Your task to perform on an android device: set the stopwatch Image 0: 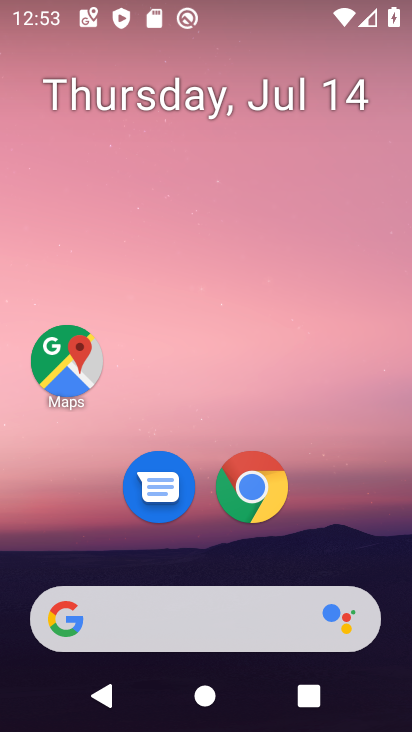
Step 0: drag from (235, 609) to (223, 157)
Your task to perform on an android device: set the stopwatch Image 1: 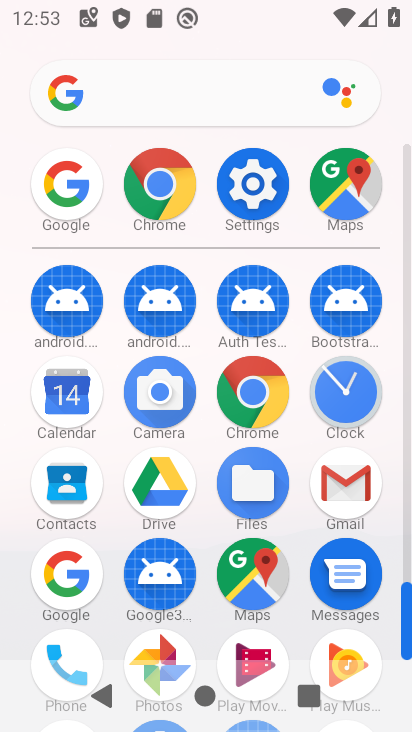
Step 1: click (371, 394)
Your task to perform on an android device: set the stopwatch Image 2: 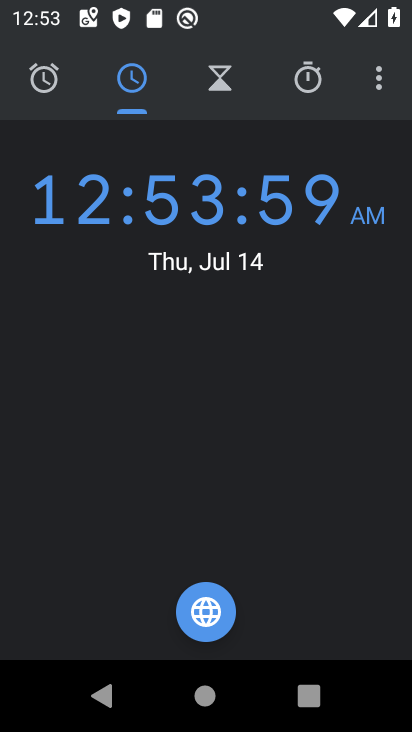
Step 2: click (305, 89)
Your task to perform on an android device: set the stopwatch Image 3: 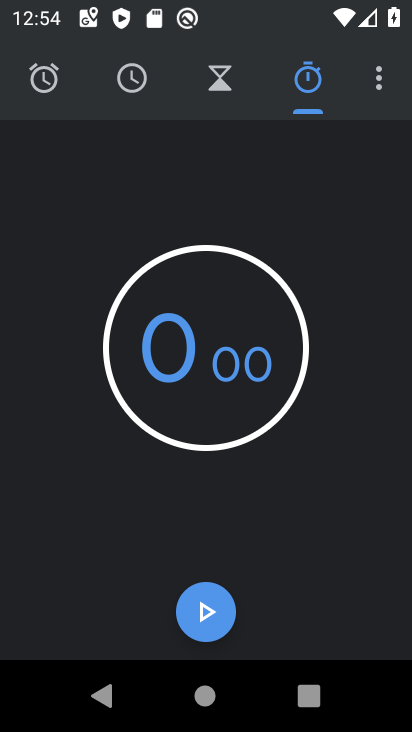
Step 3: click (220, 606)
Your task to perform on an android device: set the stopwatch Image 4: 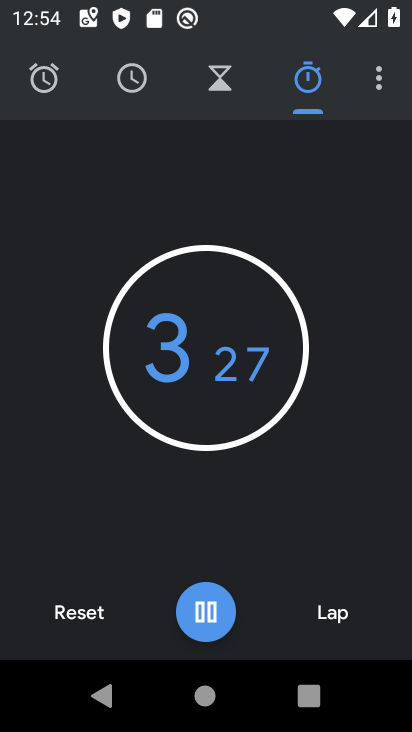
Step 4: task complete